Your task to perform on an android device: Search for a storage ottoman in the living room Image 0: 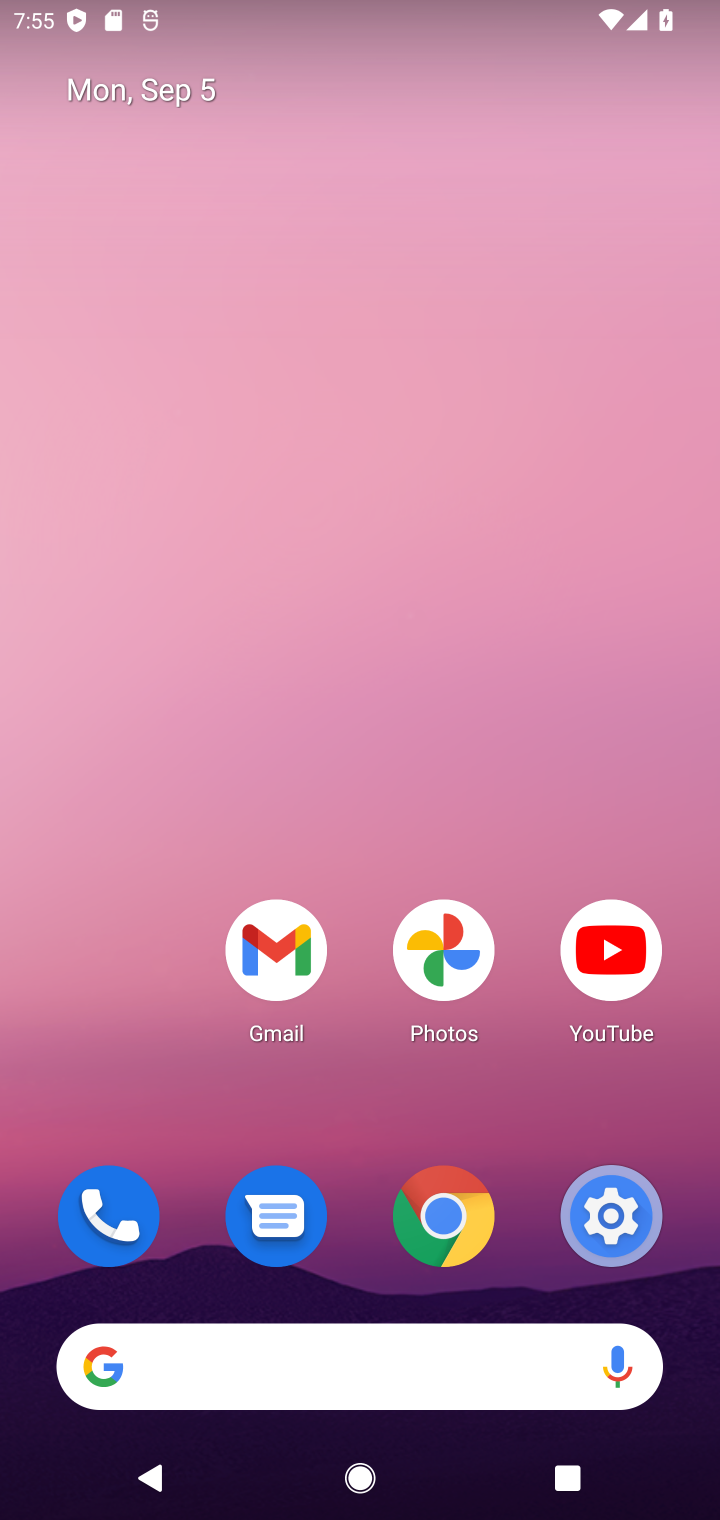
Step 0: click (347, 1402)
Your task to perform on an android device: Search for a storage ottoman in the living room Image 1: 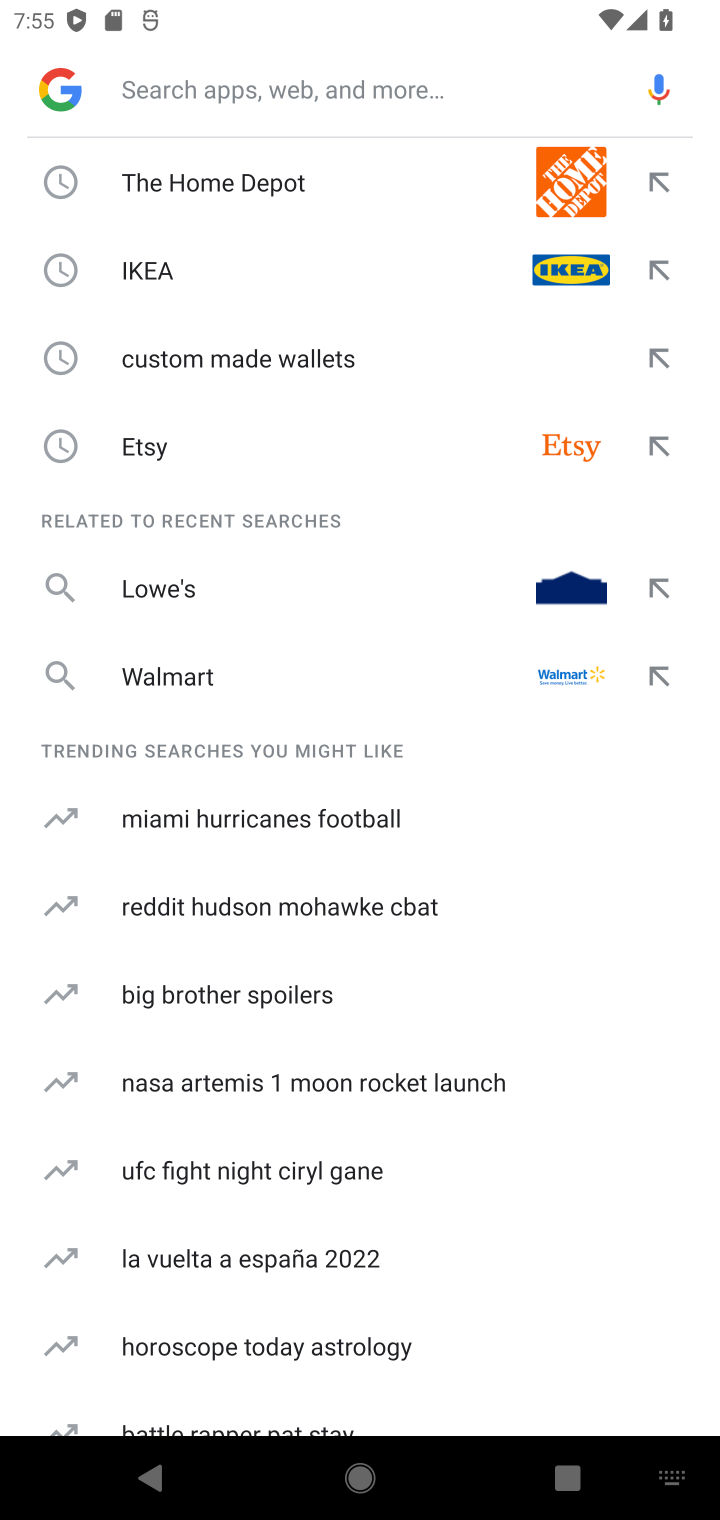
Step 1: type " storage ottoman in the living room"
Your task to perform on an android device: Search for a storage ottoman in the living room Image 2: 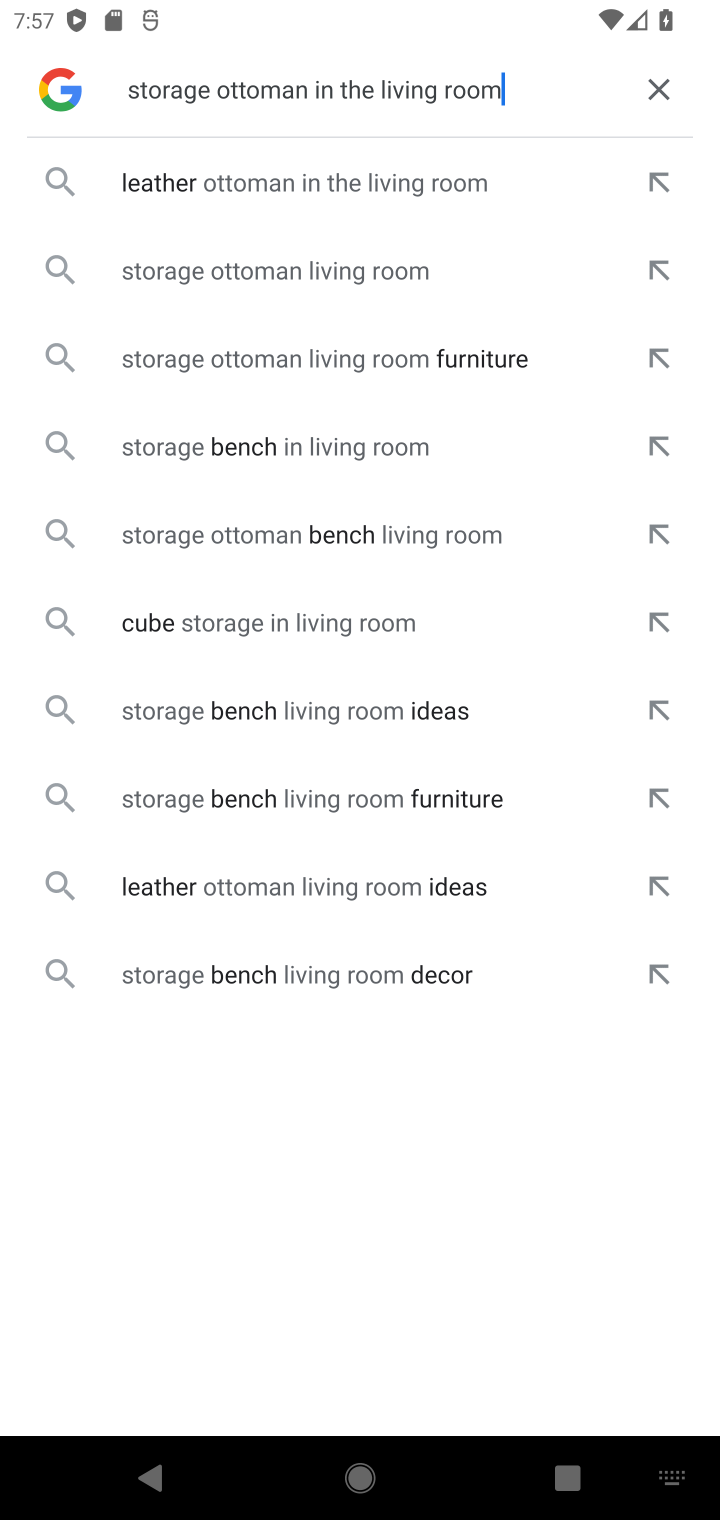
Step 2: click (361, 275)
Your task to perform on an android device: Search for a storage ottoman in the living room Image 3: 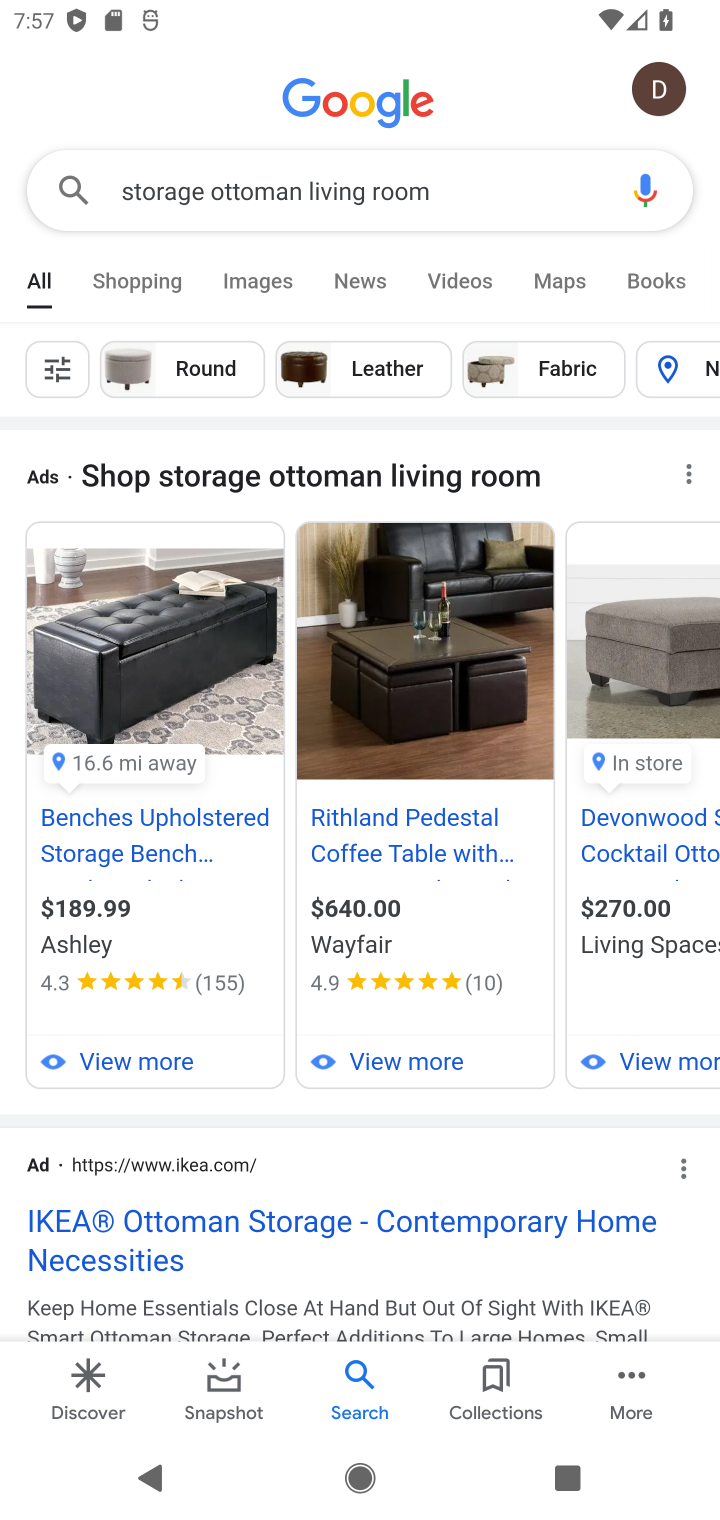
Step 3: click (190, 1201)
Your task to perform on an android device: Search for a storage ottoman in the living room Image 4: 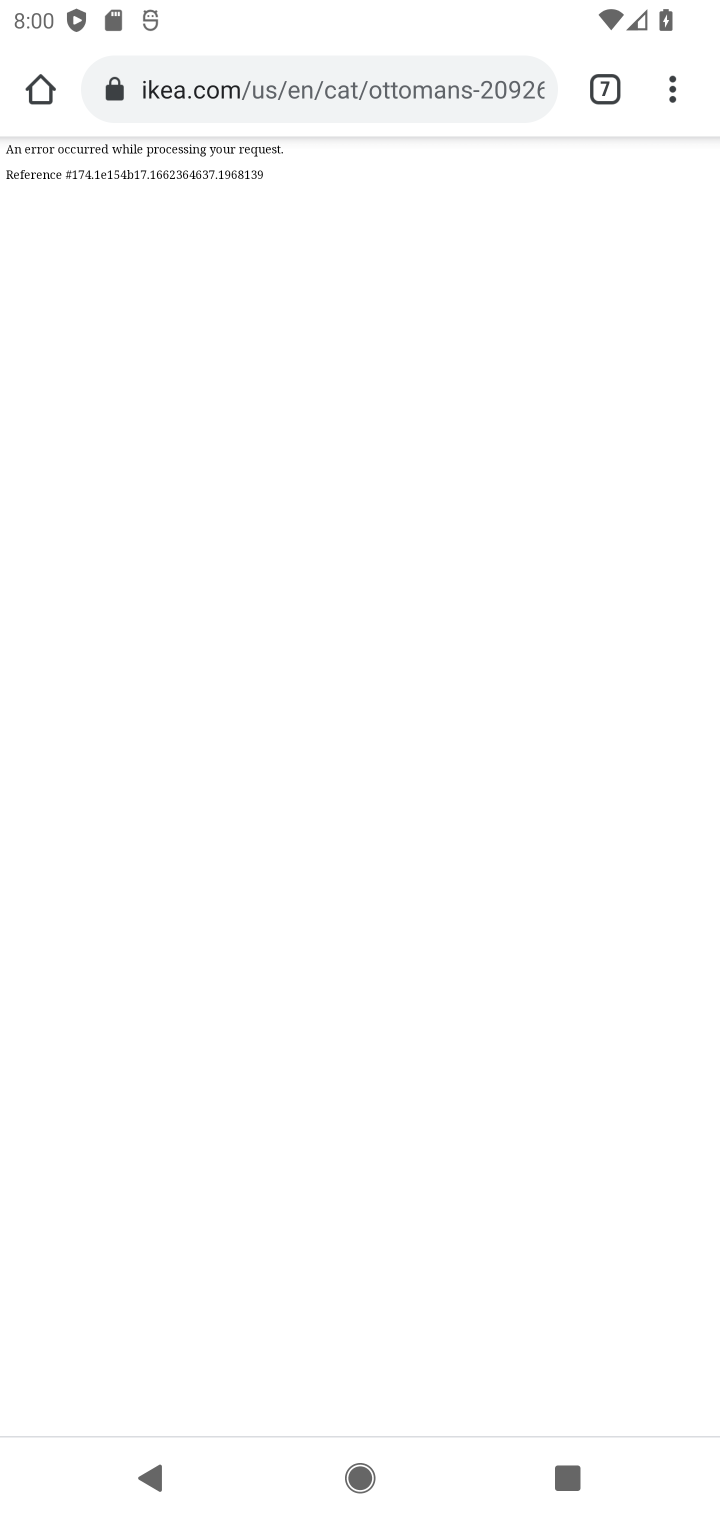
Step 4: task complete